Your task to perform on an android device: choose inbox layout in the gmail app Image 0: 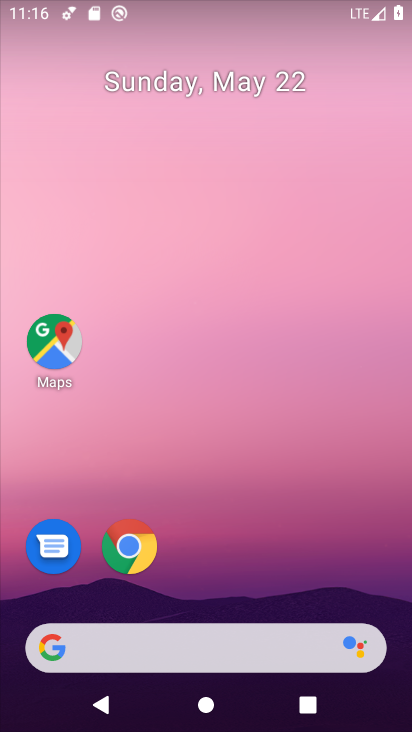
Step 0: drag from (249, 668) to (299, 86)
Your task to perform on an android device: choose inbox layout in the gmail app Image 1: 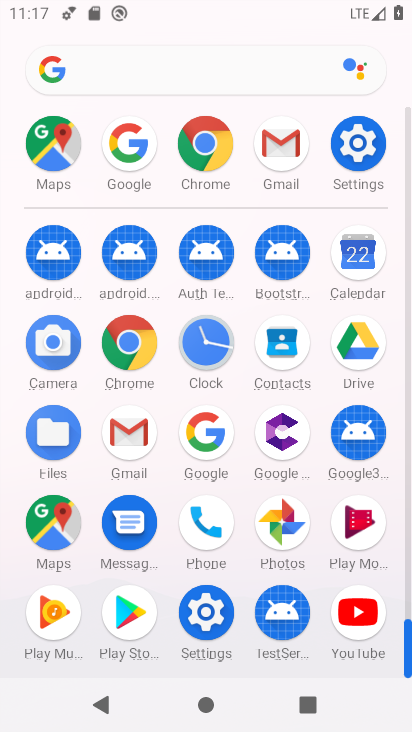
Step 1: click (141, 445)
Your task to perform on an android device: choose inbox layout in the gmail app Image 2: 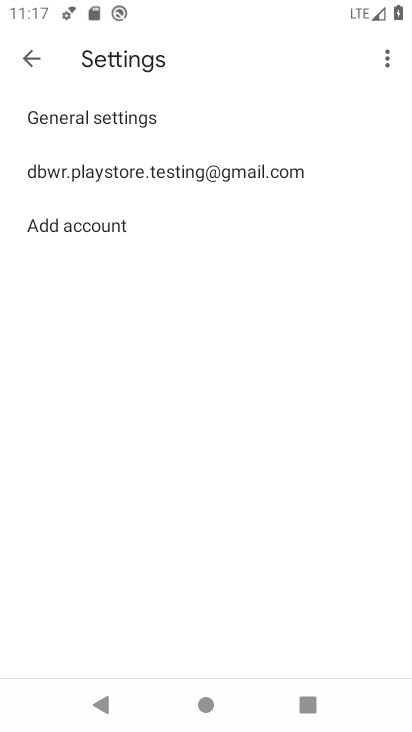
Step 2: click (194, 116)
Your task to perform on an android device: choose inbox layout in the gmail app Image 3: 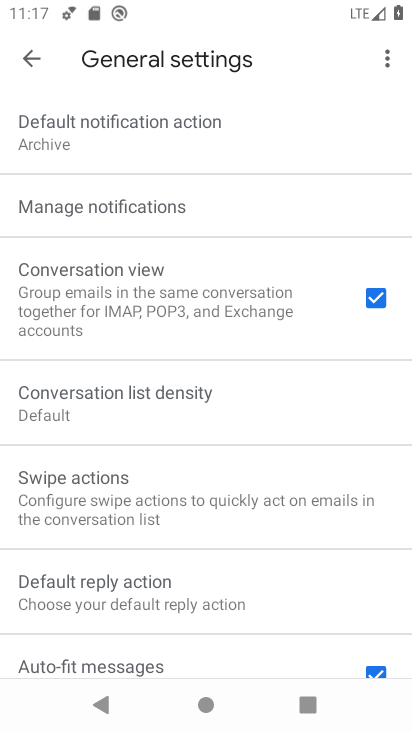
Step 3: task complete